Your task to perform on an android device: see creations saved in the google photos Image 0: 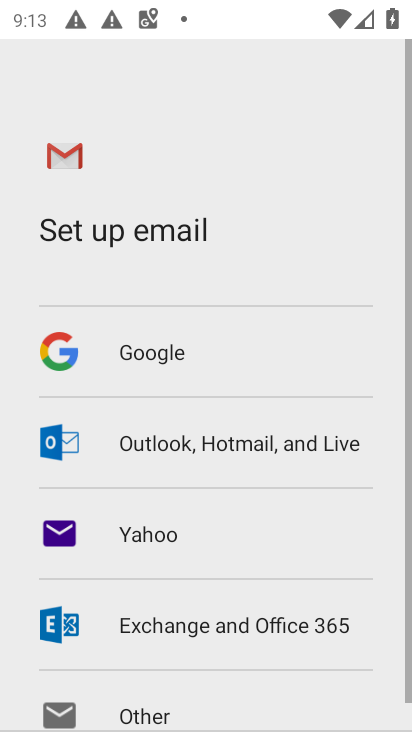
Step 0: press home button
Your task to perform on an android device: see creations saved in the google photos Image 1: 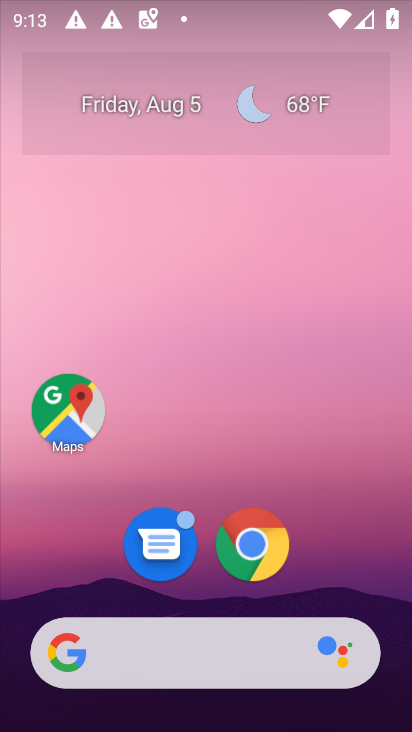
Step 1: click (284, 87)
Your task to perform on an android device: see creations saved in the google photos Image 2: 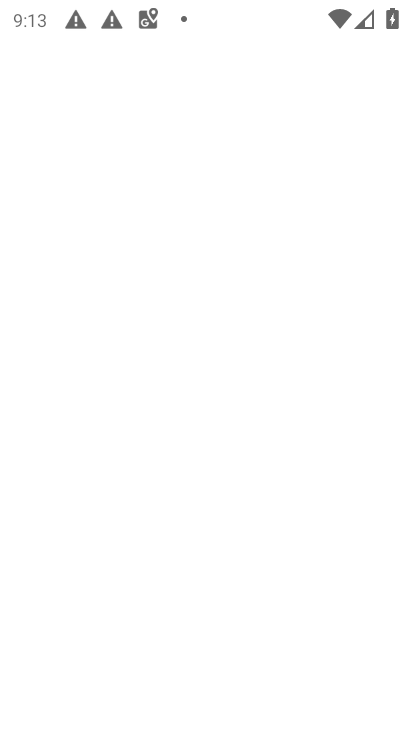
Step 2: drag from (343, 679) to (298, 244)
Your task to perform on an android device: see creations saved in the google photos Image 3: 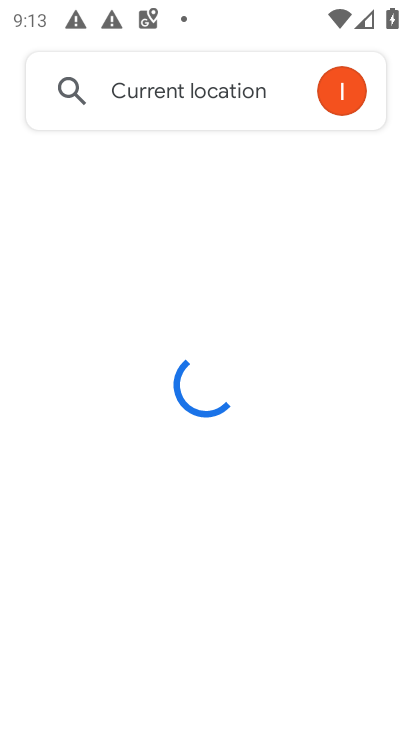
Step 3: press home button
Your task to perform on an android device: see creations saved in the google photos Image 4: 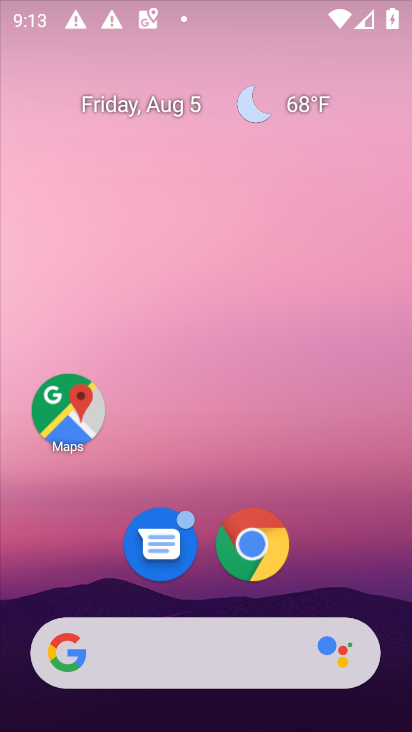
Step 4: drag from (359, 598) to (394, 32)
Your task to perform on an android device: see creations saved in the google photos Image 5: 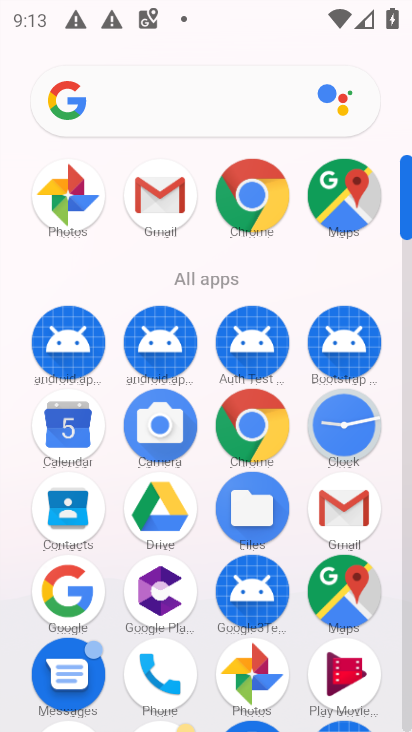
Step 5: click (269, 682)
Your task to perform on an android device: see creations saved in the google photos Image 6: 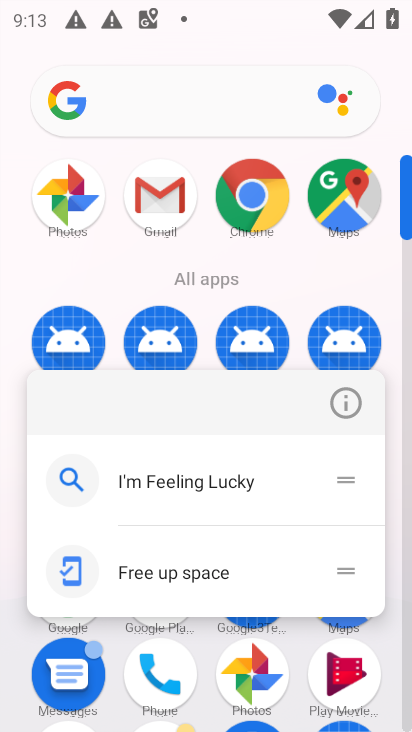
Step 6: click (269, 680)
Your task to perform on an android device: see creations saved in the google photos Image 7: 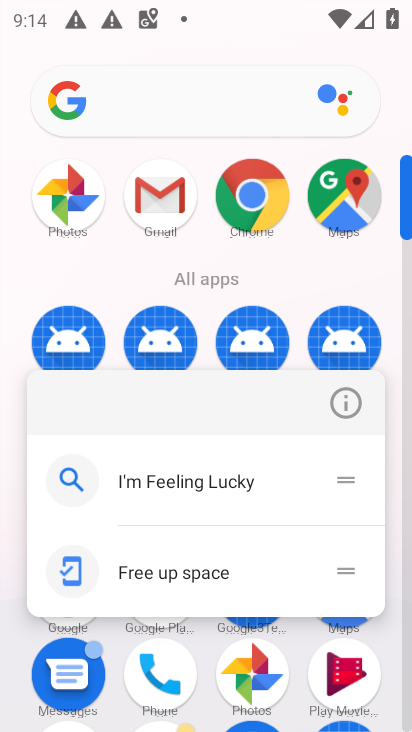
Step 7: click (264, 684)
Your task to perform on an android device: see creations saved in the google photos Image 8: 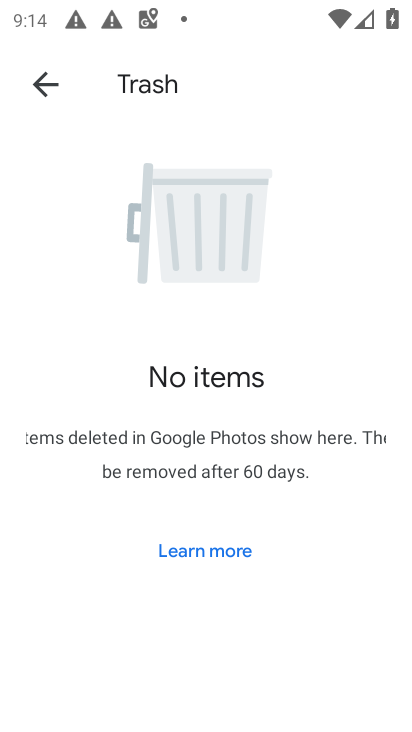
Step 8: click (51, 95)
Your task to perform on an android device: see creations saved in the google photos Image 9: 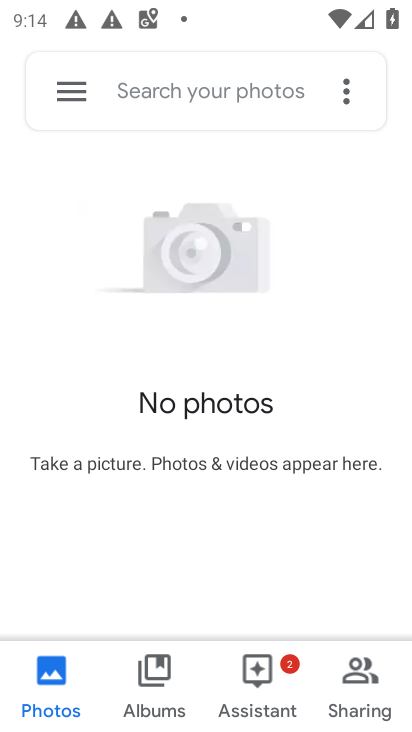
Step 9: click (147, 674)
Your task to perform on an android device: see creations saved in the google photos Image 10: 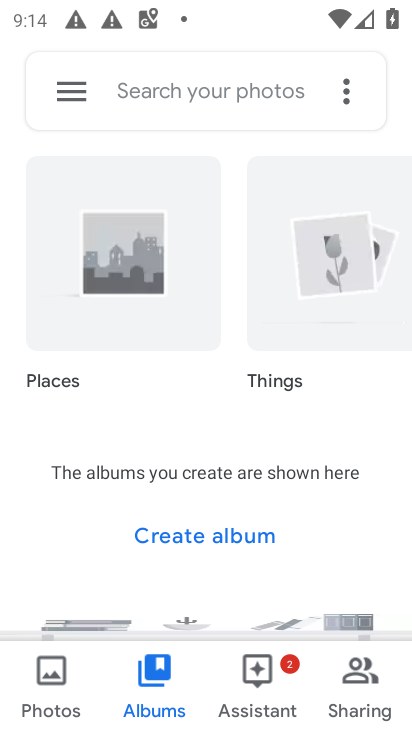
Step 10: task complete